Your task to perform on an android device: clear all cookies in the chrome app Image 0: 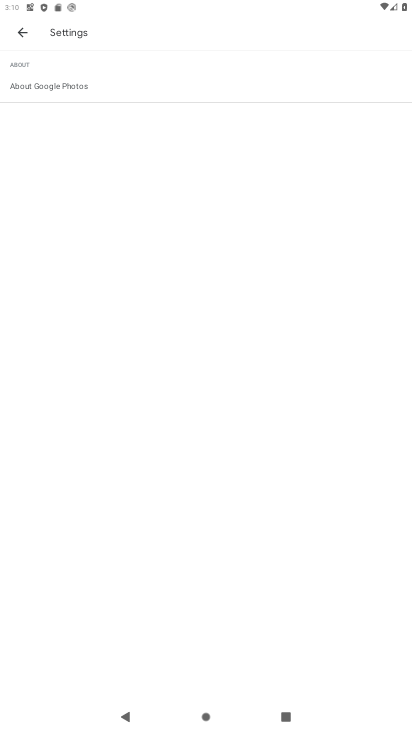
Step 0: press home button
Your task to perform on an android device: clear all cookies in the chrome app Image 1: 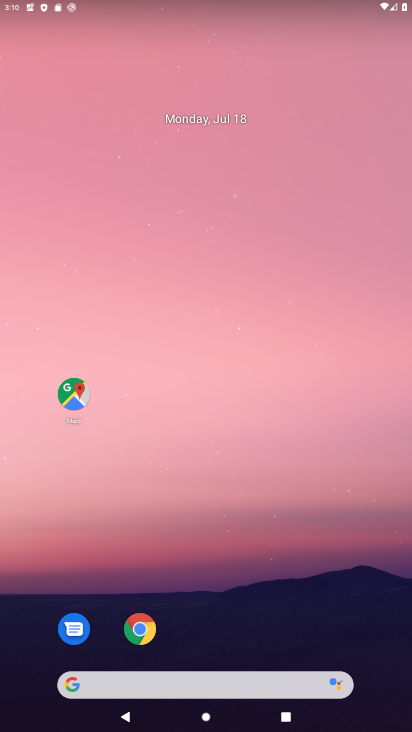
Step 1: click (133, 626)
Your task to perform on an android device: clear all cookies in the chrome app Image 2: 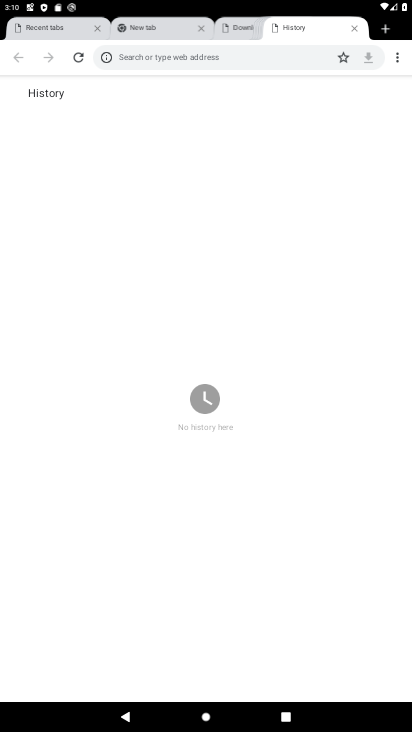
Step 2: click (397, 56)
Your task to perform on an android device: clear all cookies in the chrome app Image 3: 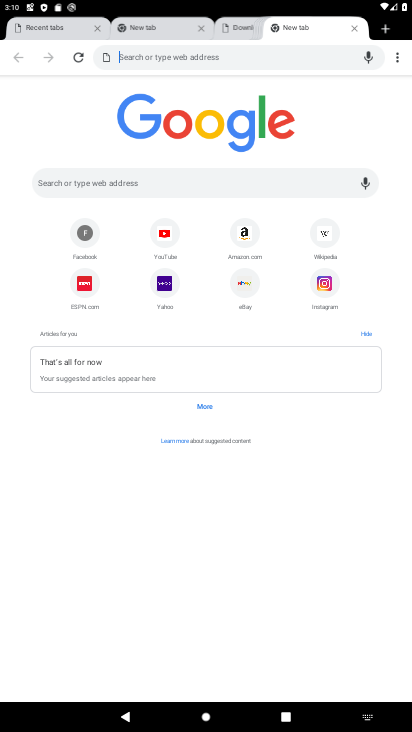
Step 3: click (396, 52)
Your task to perform on an android device: clear all cookies in the chrome app Image 4: 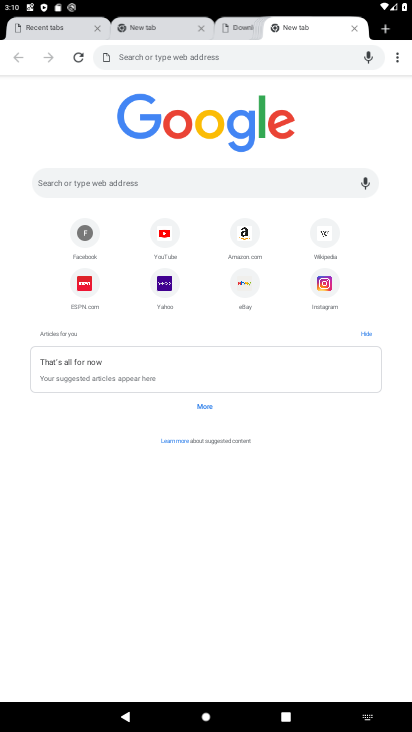
Step 4: task complete